Your task to perform on an android device: find photos in the google photos app Image 0: 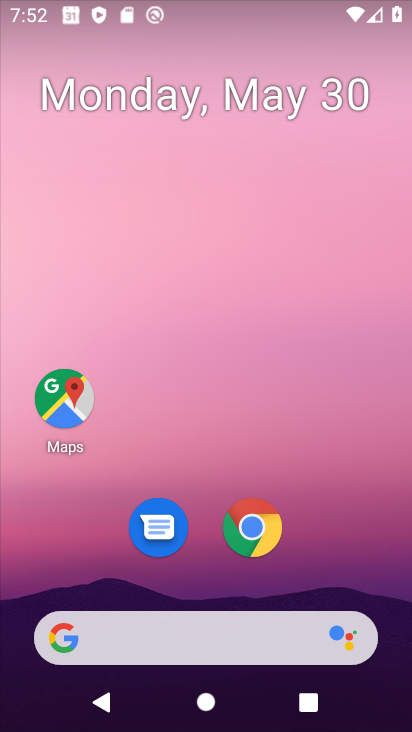
Step 0: drag from (349, 560) to (332, 25)
Your task to perform on an android device: find photos in the google photos app Image 1: 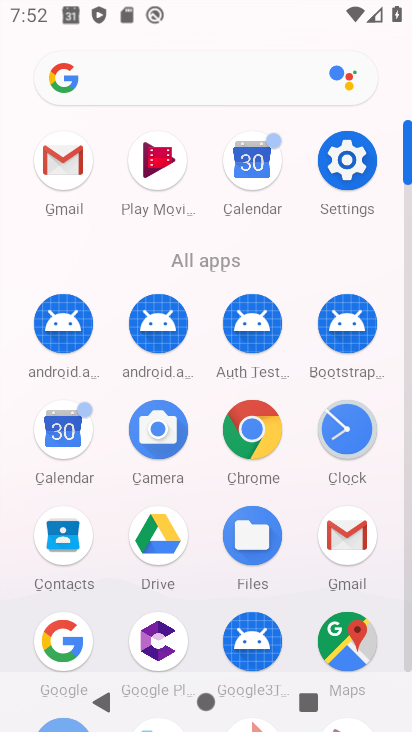
Step 1: drag from (297, 604) to (274, 263)
Your task to perform on an android device: find photos in the google photos app Image 2: 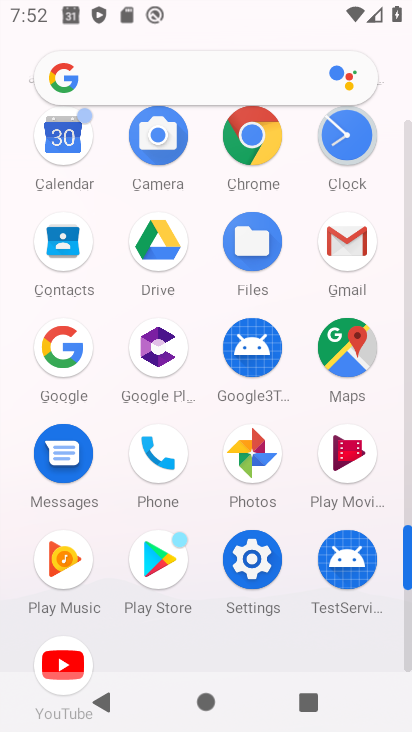
Step 2: click (253, 452)
Your task to perform on an android device: find photos in the google photos app Image 3: 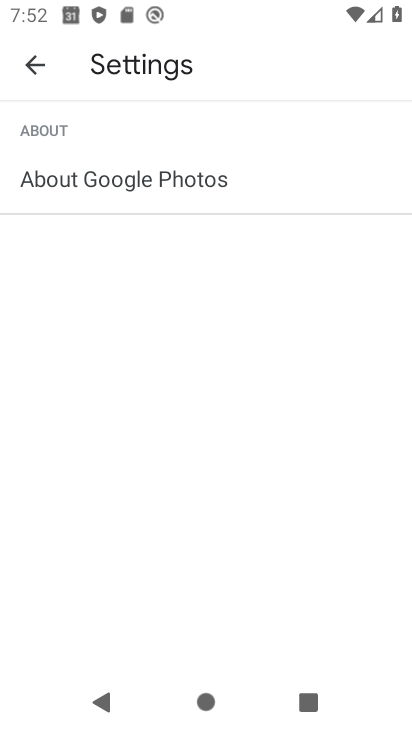
Step 3: click (19, 72)
Your task to perform on an android device: find photos in the google photos app Image 4: 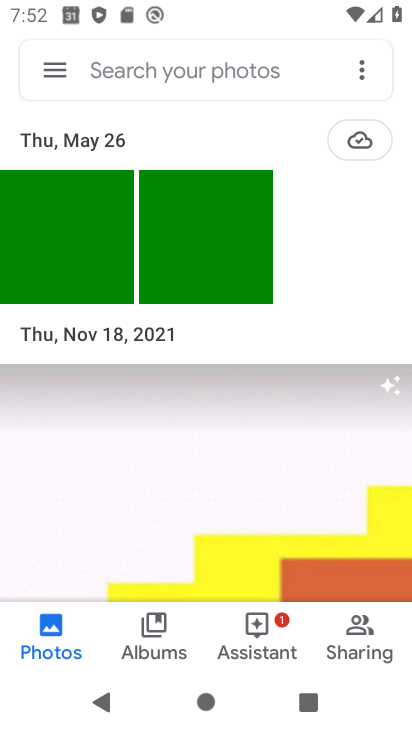
Step 4: task complete